Your task to perform on an android device: toggle pop-ups in chrome Image 0: 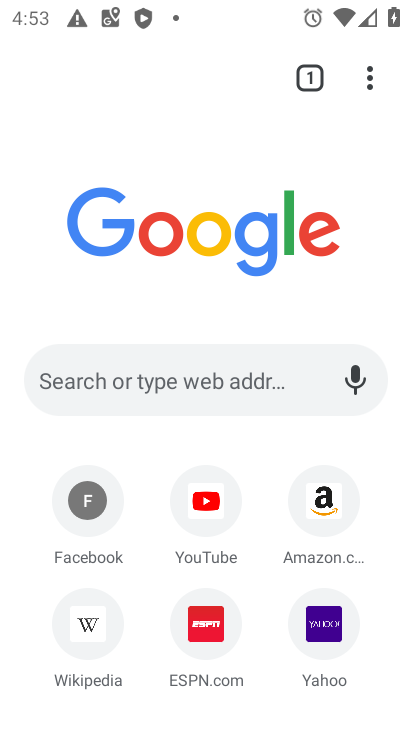
Step 0: click (355, 81)
Your task to perform on an android device: toggle pop-ups in chrome Image 1: 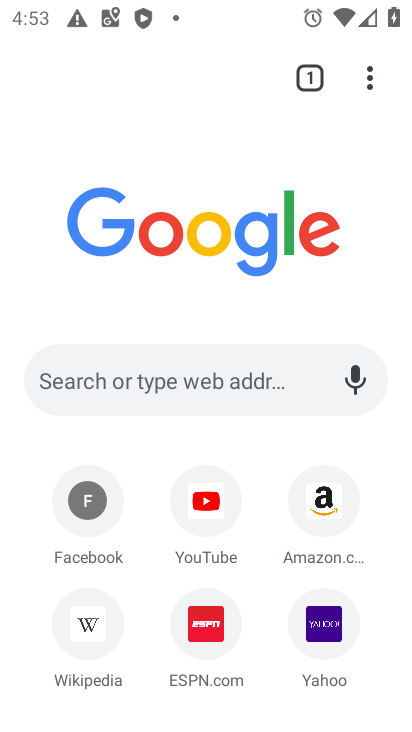
Step 1: click (368, 81)
Your task to perform on an android device: toggle pop-ups in chrome Image 2: 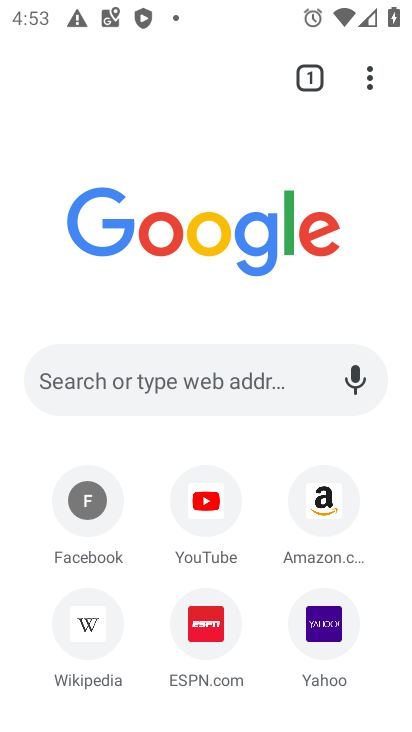
Step 2: click (366, 72)
Your task to perform on an android device: toggle pop-ups in chrome Image 3: 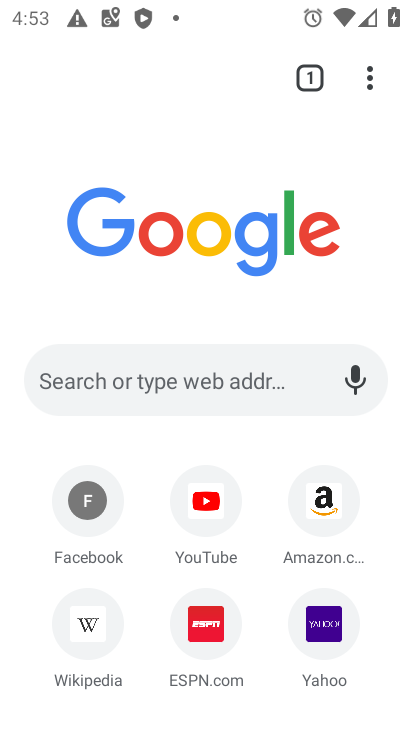
Step 3: click (374, 80)
Your task to perform on an android device: toggle pop-ups in chrome Image 4: 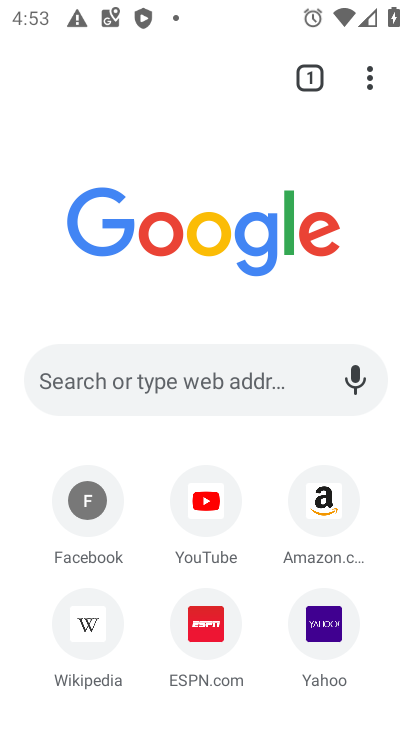
Step 4: click (378, 87)
Your task to perform on an android device: toggle pop-ups in chrome Image 5: 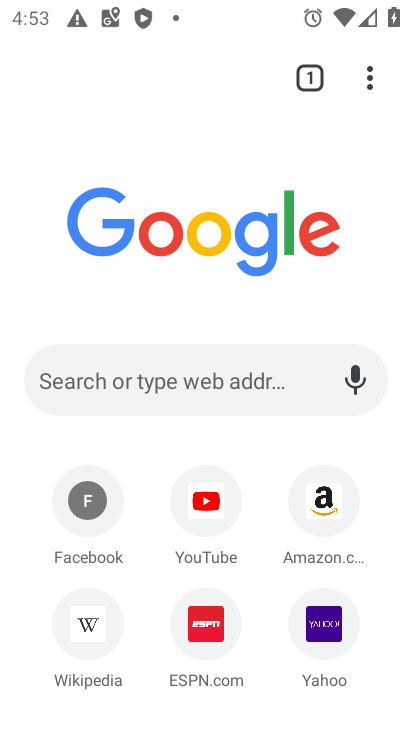
Step 5: click (367, 83)
Your task to perform on an android device: toggle pop-ups in chrome Image 6: 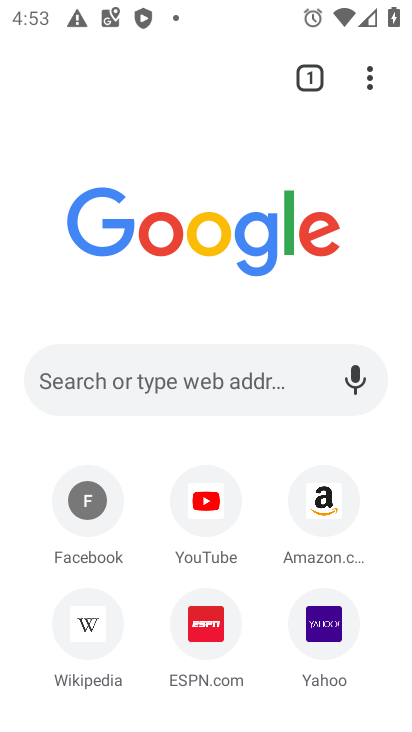
Step 6: click (365, 82)
Your task to perform on an android device: toggle pop-ups in chrome Image 7: 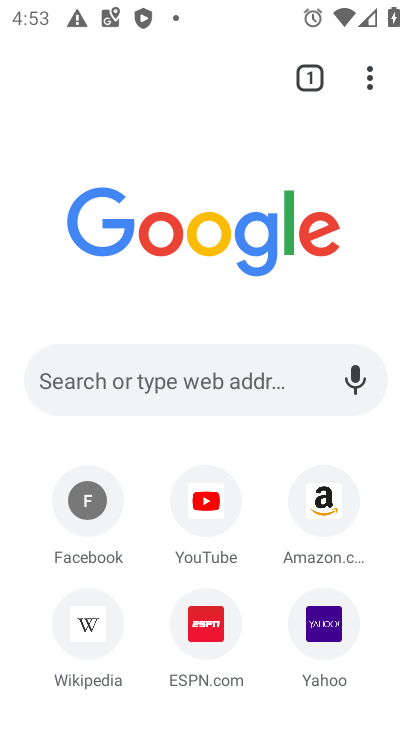
Step 7: click (365, 82)
Your task to perform on an android device: toggle pop-ups in chrome Image 8: 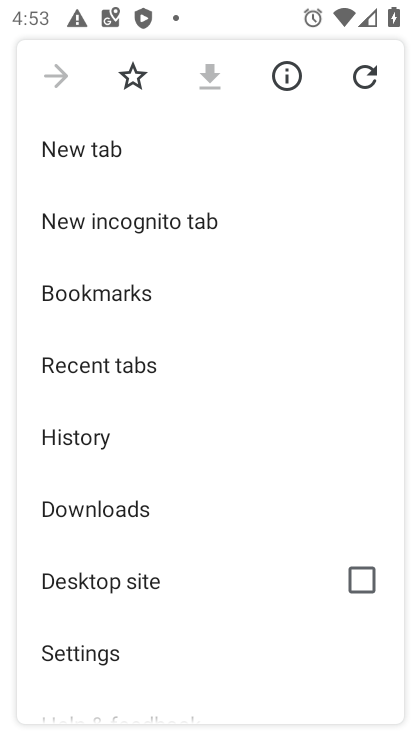
Step 8: click (74, 650)
Your task to perform on an android device: toggle pop-ups in chrome Image 9: 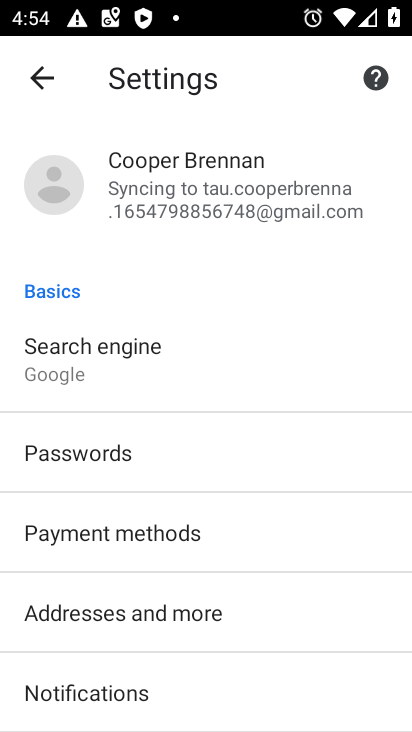
Step 9: drag from (100, 692) to (88, 259)
Your task to perform on an android device: toggle pop-ups in chrome Image 10: 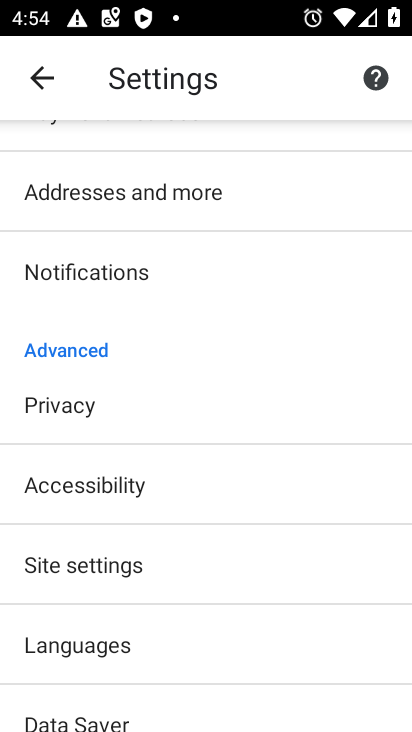
Step 10: click (99, 570)
Your task to perform on an android device: toggle pop-ups in chrome Image 11: 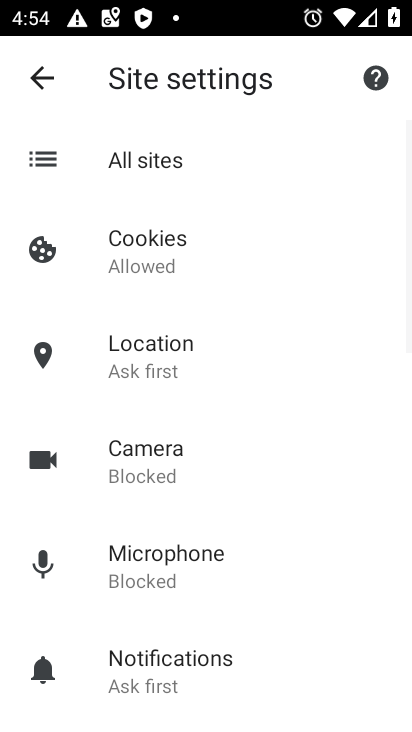
Step 11: drag from (159, 677) to (143, 334)
Your task to perform on an android device: toggle pop-ups in chrome Image 12: 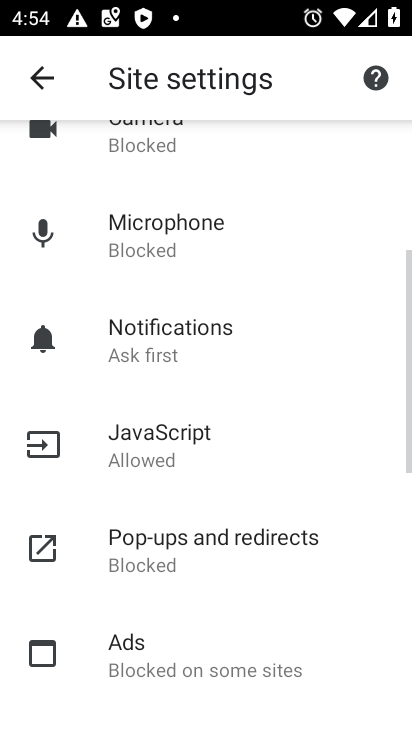
Step 12: click (152, 561)
Your task to perform on an android device: toggle pop-ups in chrome Image 13: 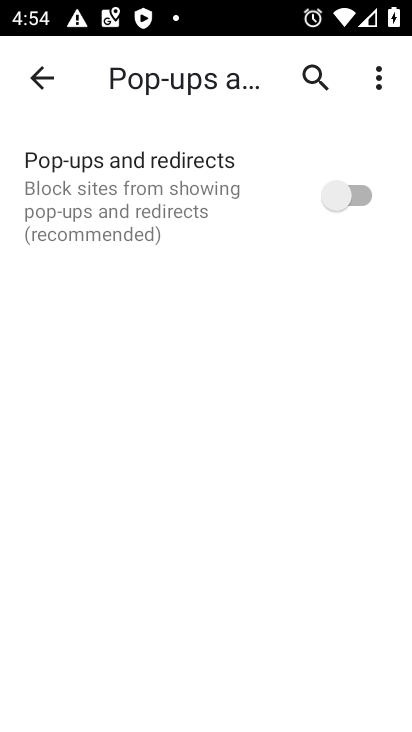
Step 13: click (354, 195)
Your task to perform on an android device: toggle pop-ups in chrome Image 14: 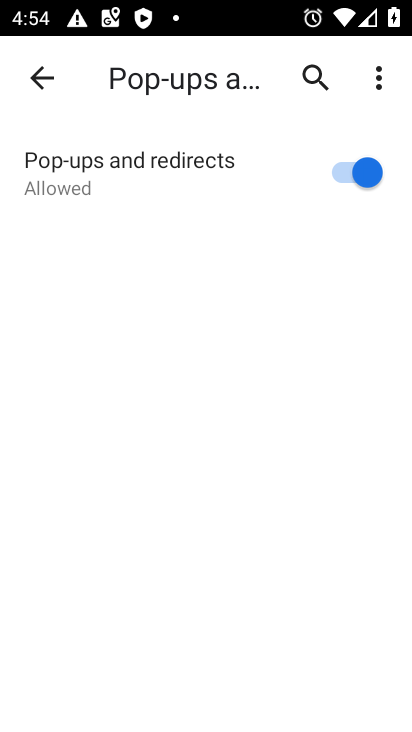
Step 14: task complete